Your task to perform on an android device: turn off picture-in-picture Image 0: 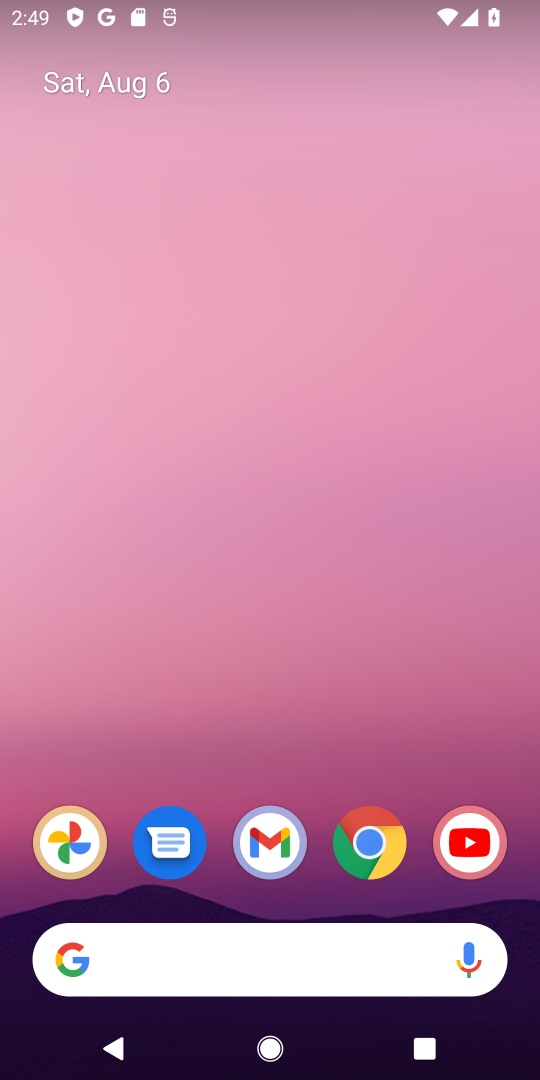
Step 0: click (373, 840)
Your task to perform on an android device: turn off picture-in-picture Image 1: 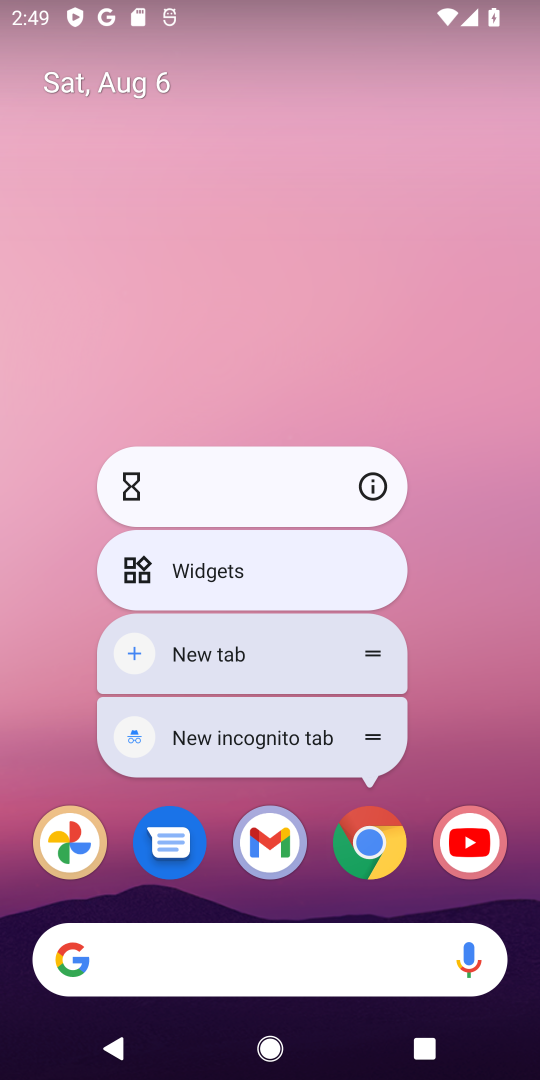
Step 1: click (378, 487)
Your task to perform on an android device: turn off picture-in-picture Image 2: 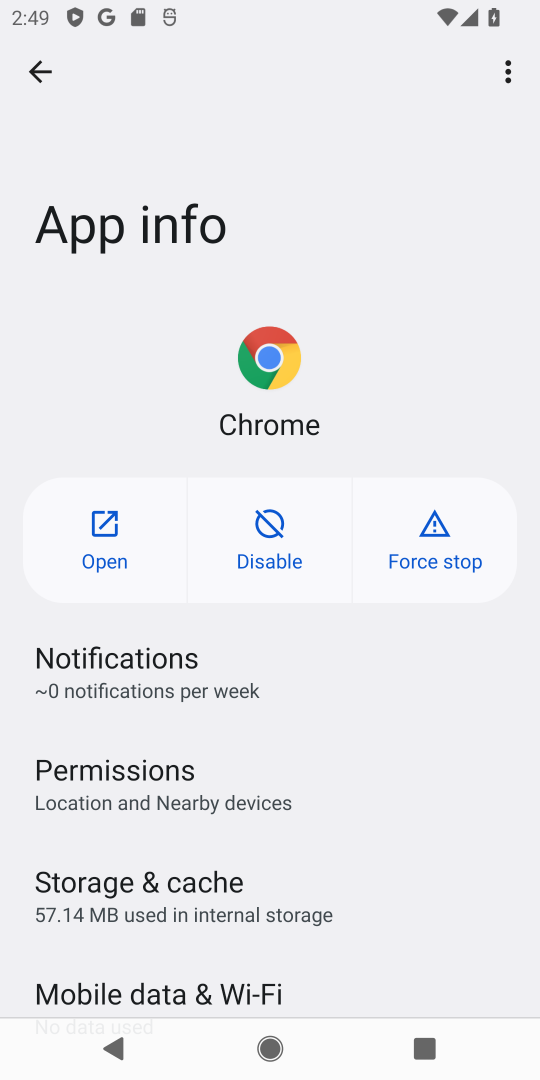
Step 2: drag from (444, 939) to (410, 390)
Your task to perform on an android device: turn off picture-in-picture Image 3: 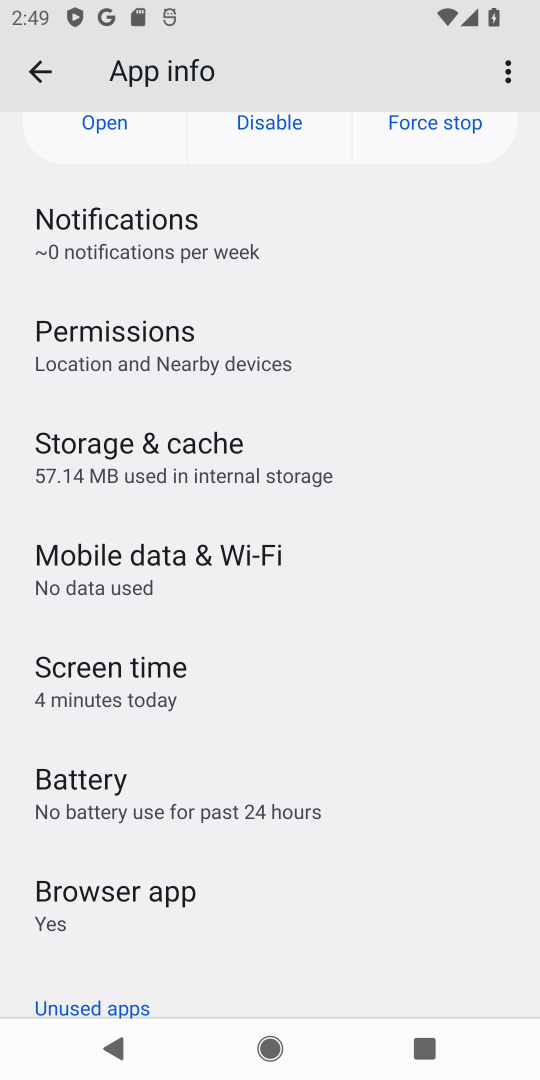
Step 3: drag from (422, 916) to (412, 466)
Your task to perform on an android device: turn off picture-in-picture Image 4: 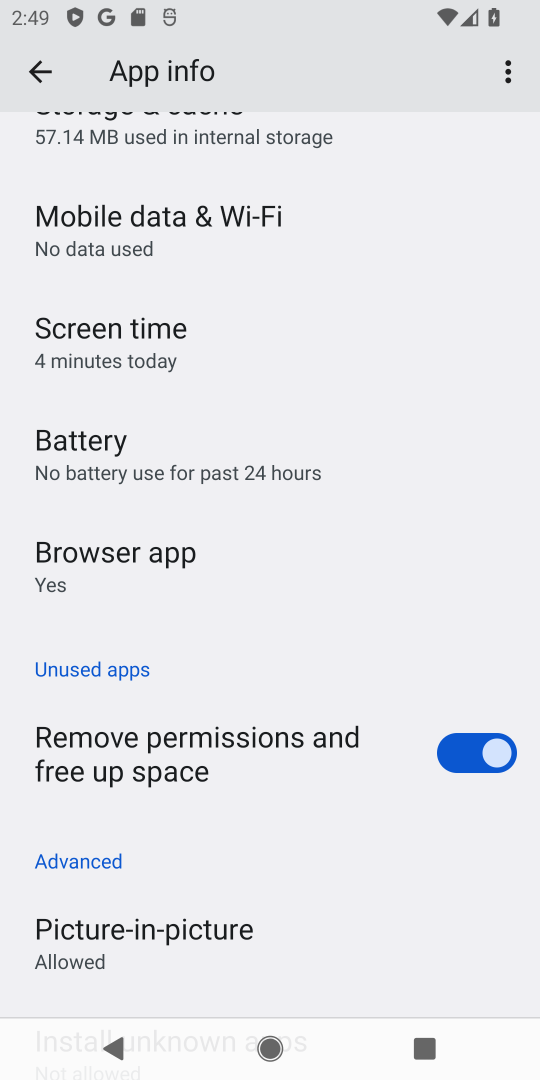
Step 4: drag from (333, 932) to (339, 463)
Your task to perform on an android device: turn off picture-in-picture Image 5: 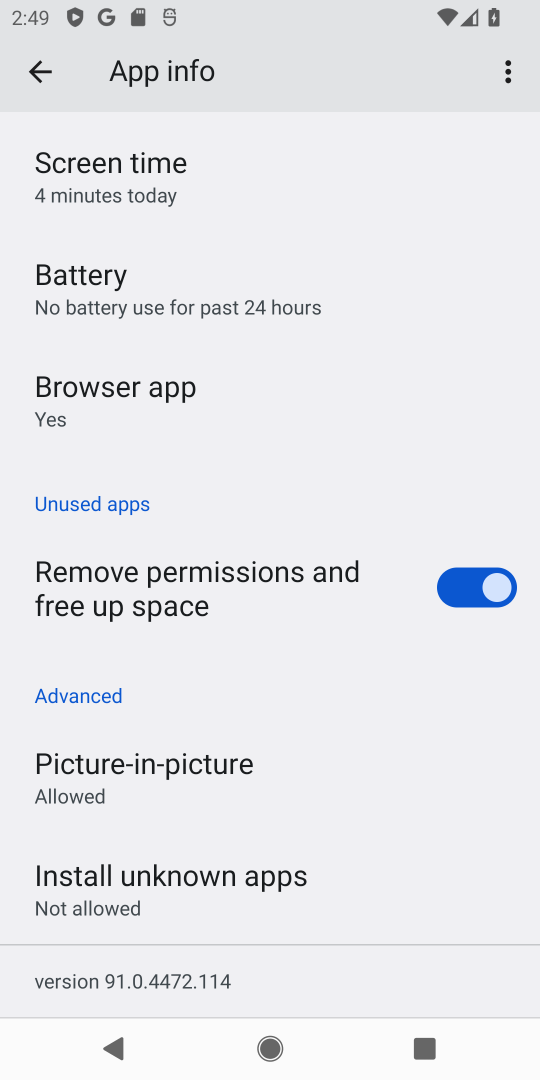
Step 5: click (141, 773)
Your task to perform on an android device: turn off picture-in-picture Image 6: 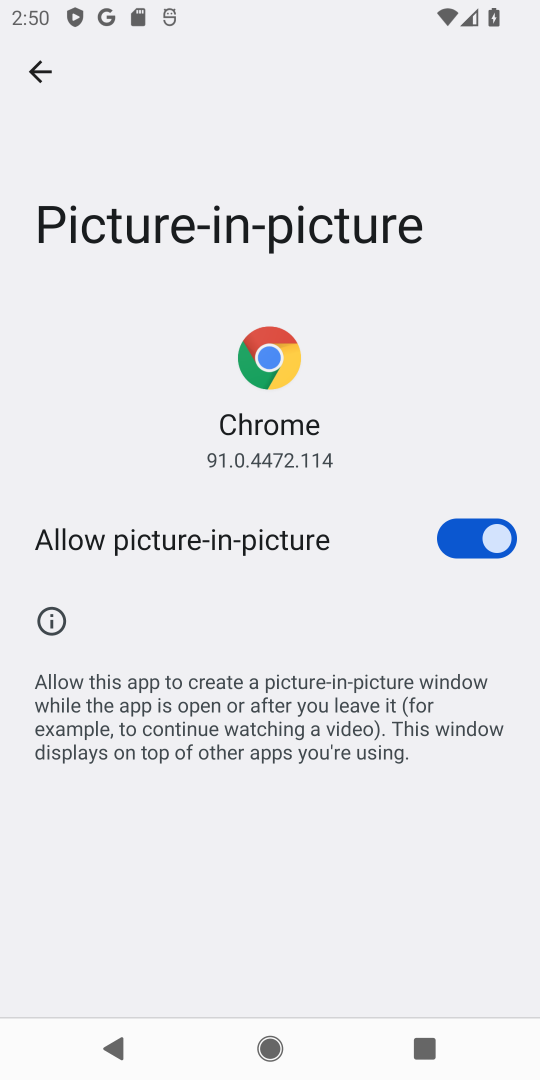
Step 6: click (459, 543)
Your task to perform on an android device: turn off picture-in-picture Image 7: 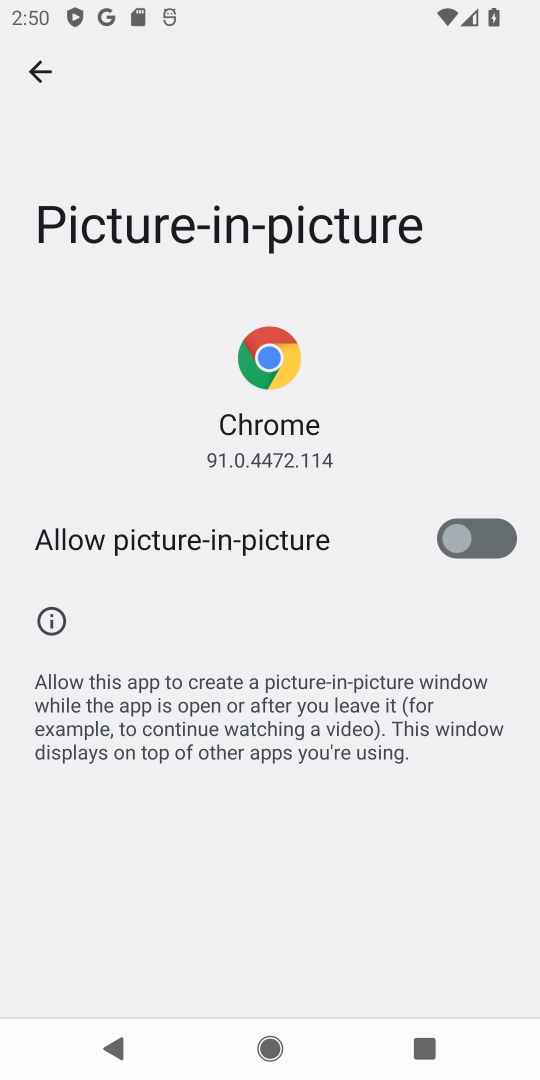
Step 7: task complete